Your task to perform on an android device: Go to Wikipedia Image 0: 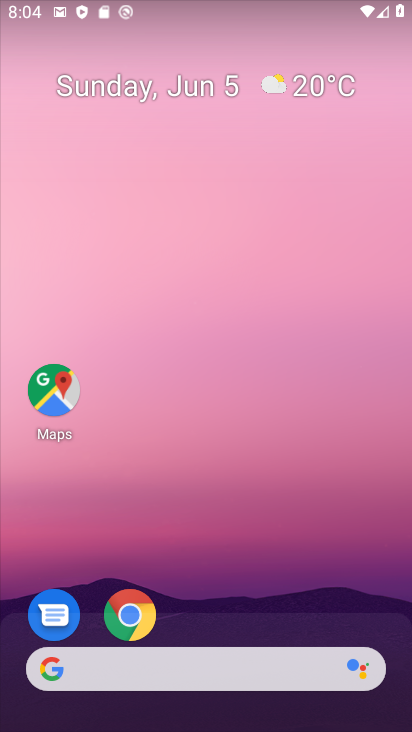
Step 0: click (124, 608)
Your task to perform on an android device: Go to Wikipedia Image 1: 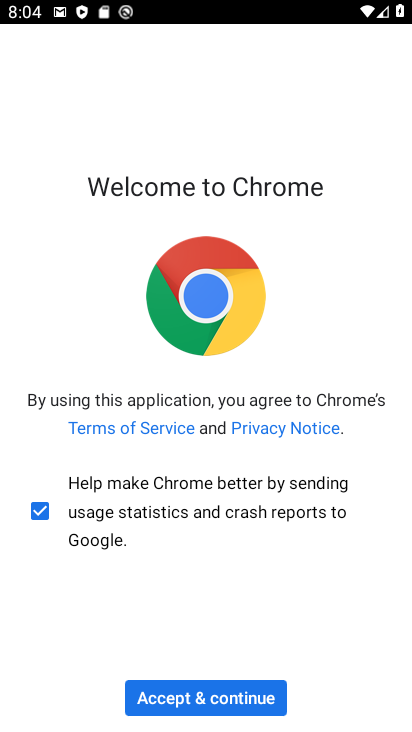
Step 1: click (222, 710)
Your task to perform on an android device: Go to Wikipedia Image 2: 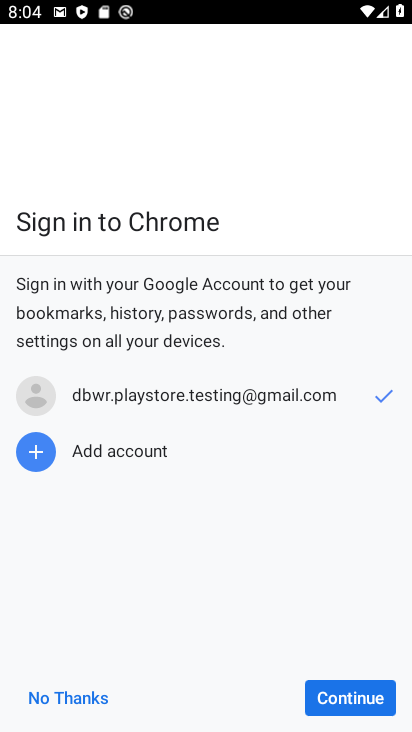
Step 2: click (312, 701)
Your task to perform on an android device: Go to Wikipedia Image 3: 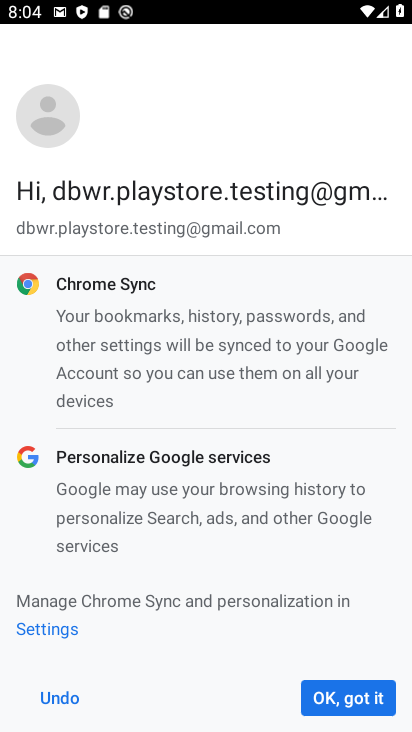
Step 3: click (295, 695)
Your task to perform on an android device: Go to Wikipedia Image 4: 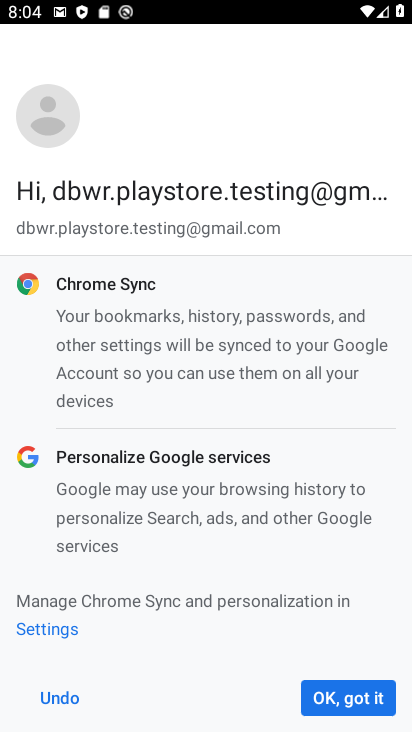
Step 4: click (315, 700)
Your task to perform on an android device: Go to Wikipedia Image 5: 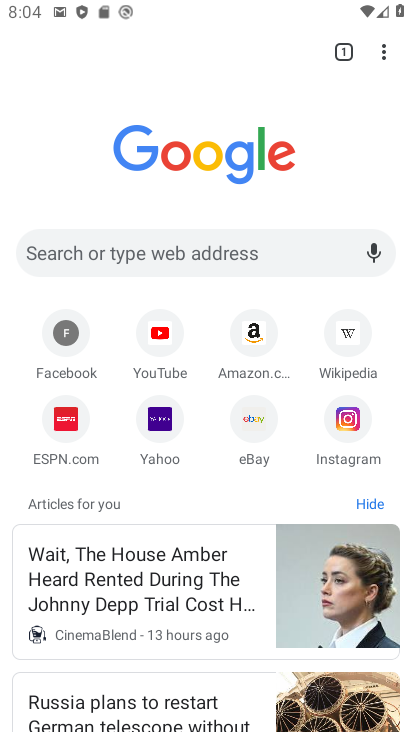
Step 5: click (353, 343)
Your task to perform on an android device: Go to Wikipedia Image 6: 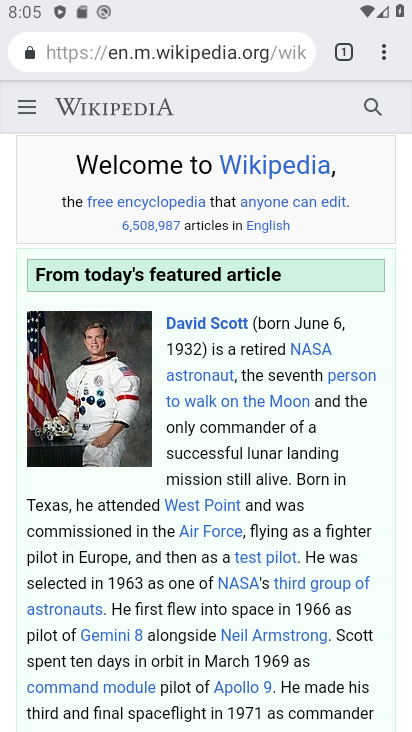
Step 6: task complete